Your task to perform on an android device: Open Wikipedia Image 0: 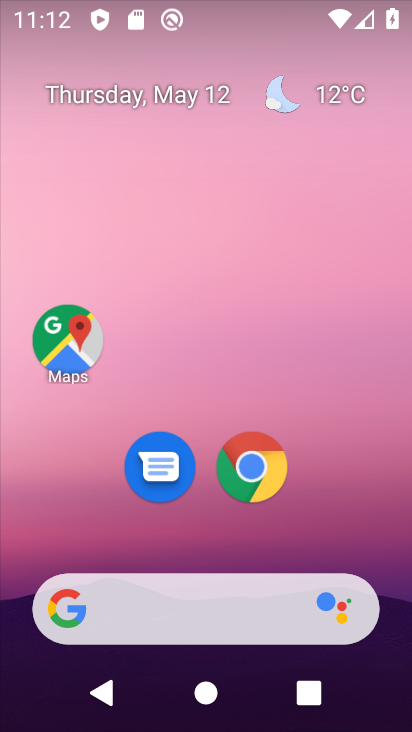
Step 0: click (250, 462)
Your task to perform on an android device: Open Wikipedia Image 1: 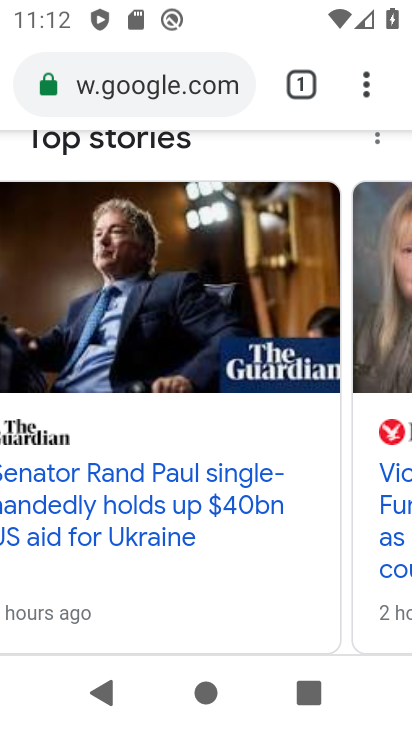
Step 1: click (183, 83)
Your task to perform on an android device: Open Wikipedia Image 2: 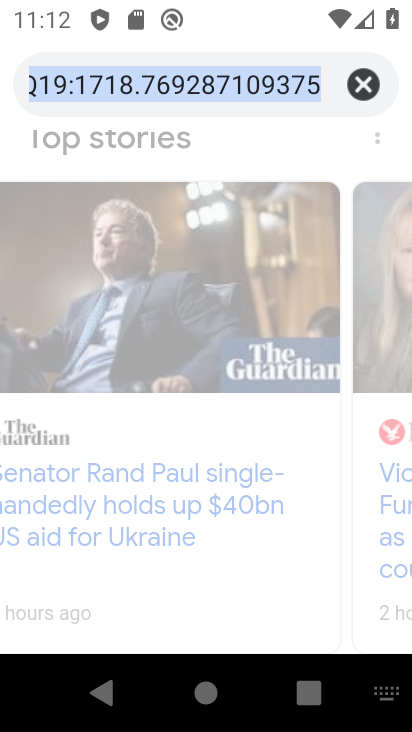
Step 2: click (371, 87)
Your task to perform on an android device: Open Wikipedia Image 3: 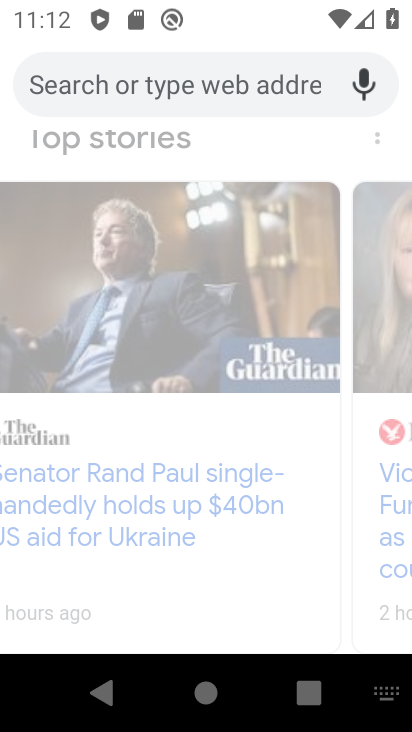
Step 3: type "Wikipedia"
Your task to perform on an android device: Open Wikipedia Image 4: 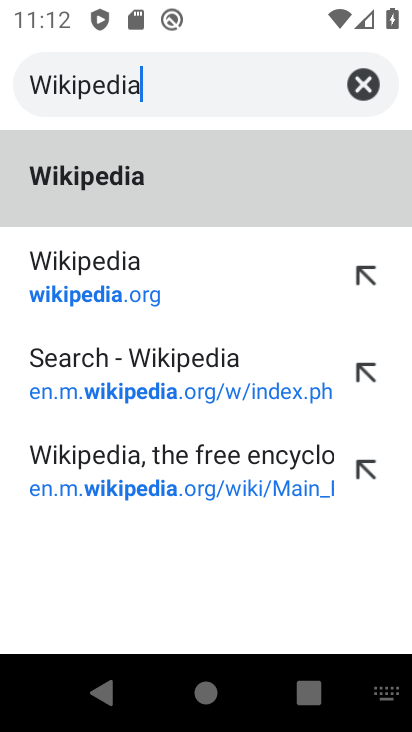
Step 4: type ""
Your task to perform on an android device: Open Wikipedia Image 5: 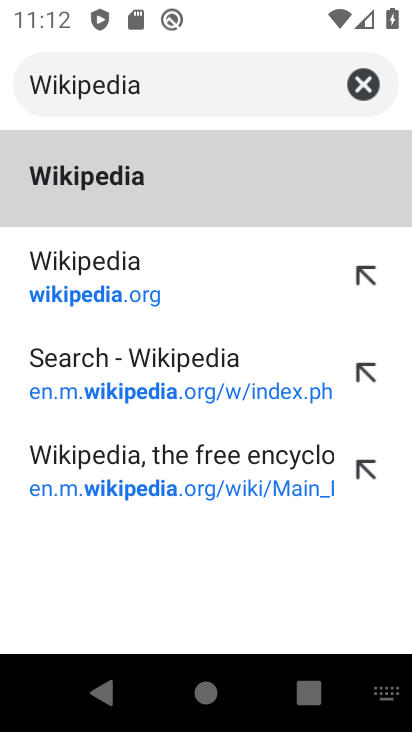
Step 5: click (120, 289)
Your task to perform on an android device: Open Wikipedia Image 6: 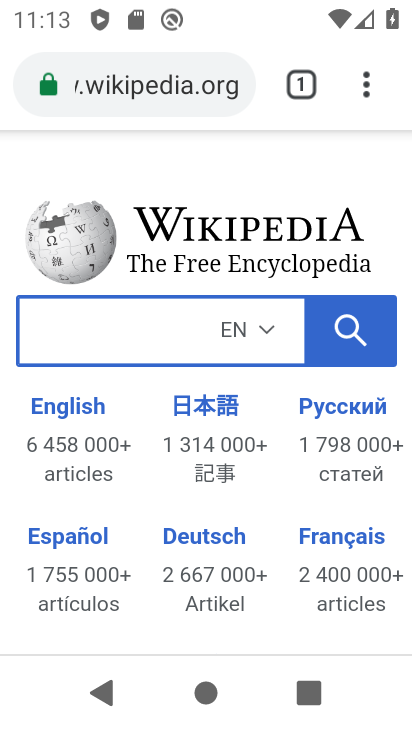
Step 6: task complete